Your task to perform on an android device: Go to Google Image 0: 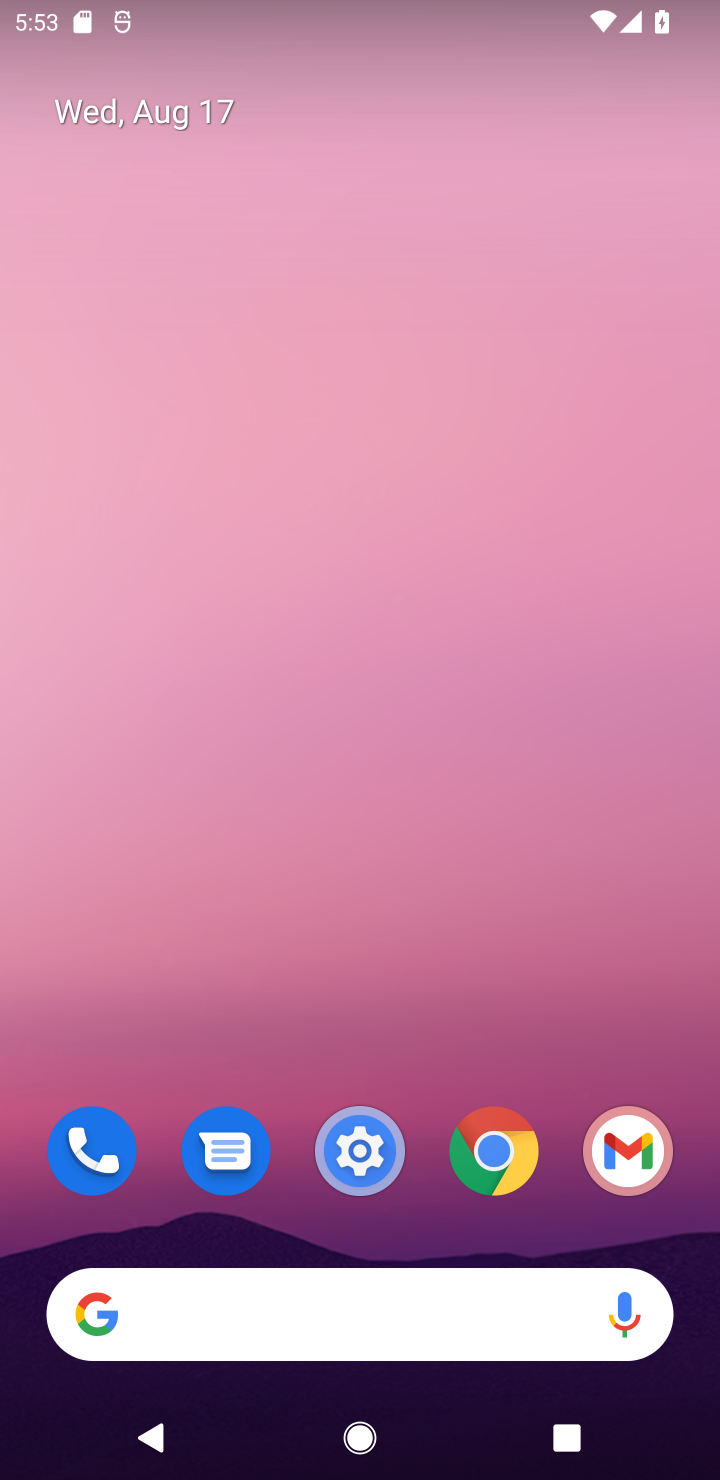
Step 0: click (486, 1188)
Your task to perform on an android device: Go to Google Image 1: 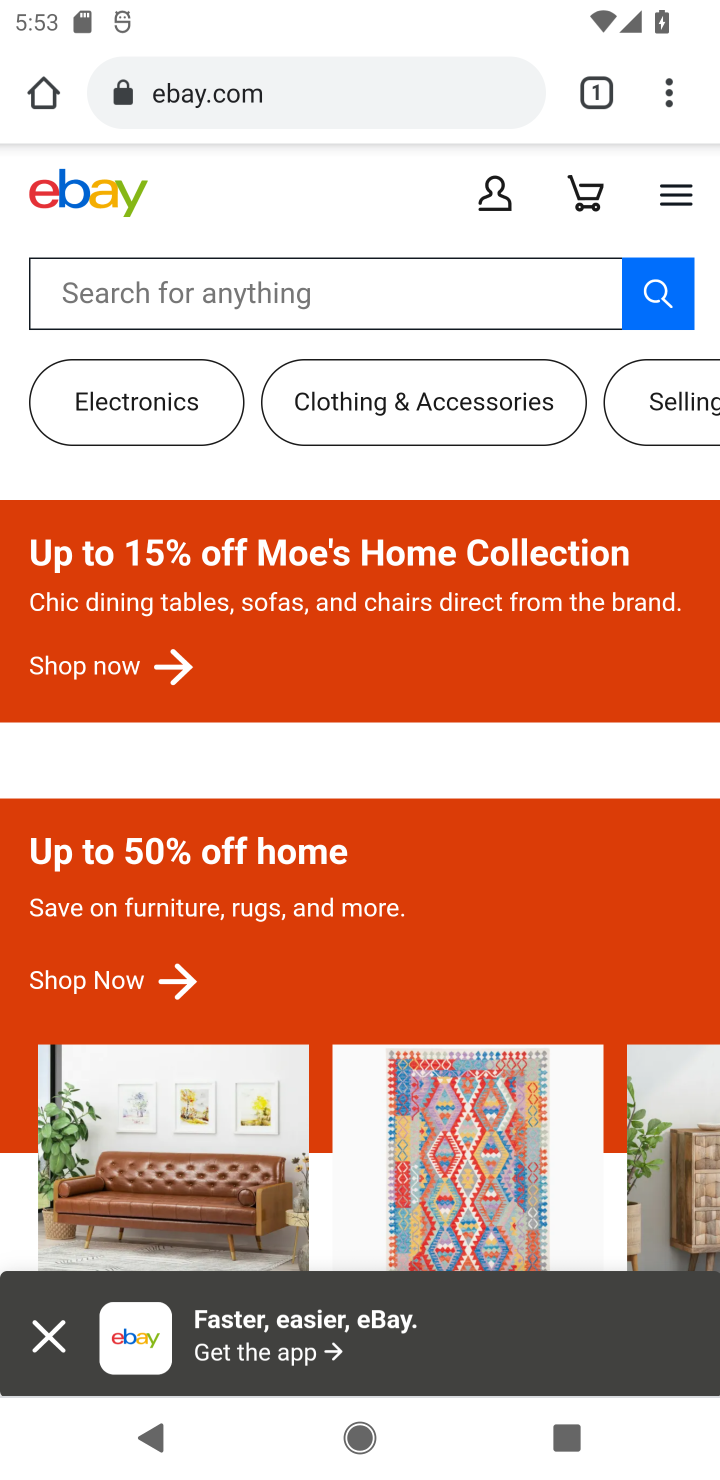
Step 1: click (255, 84)
Your task to perform on an android device: Go to Google Image 2: 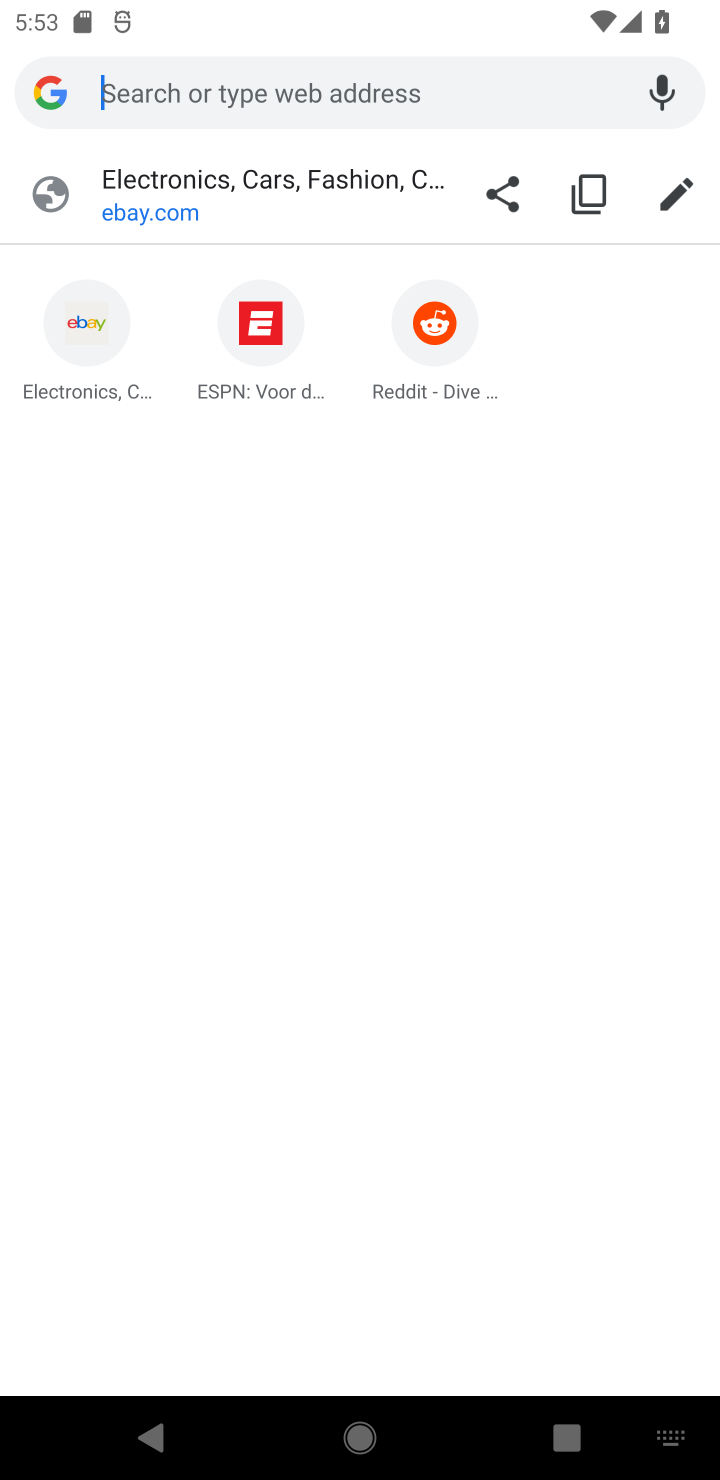
Step 2: type "google.com"
Your task to perform on an android device: Go to Google Image 3: 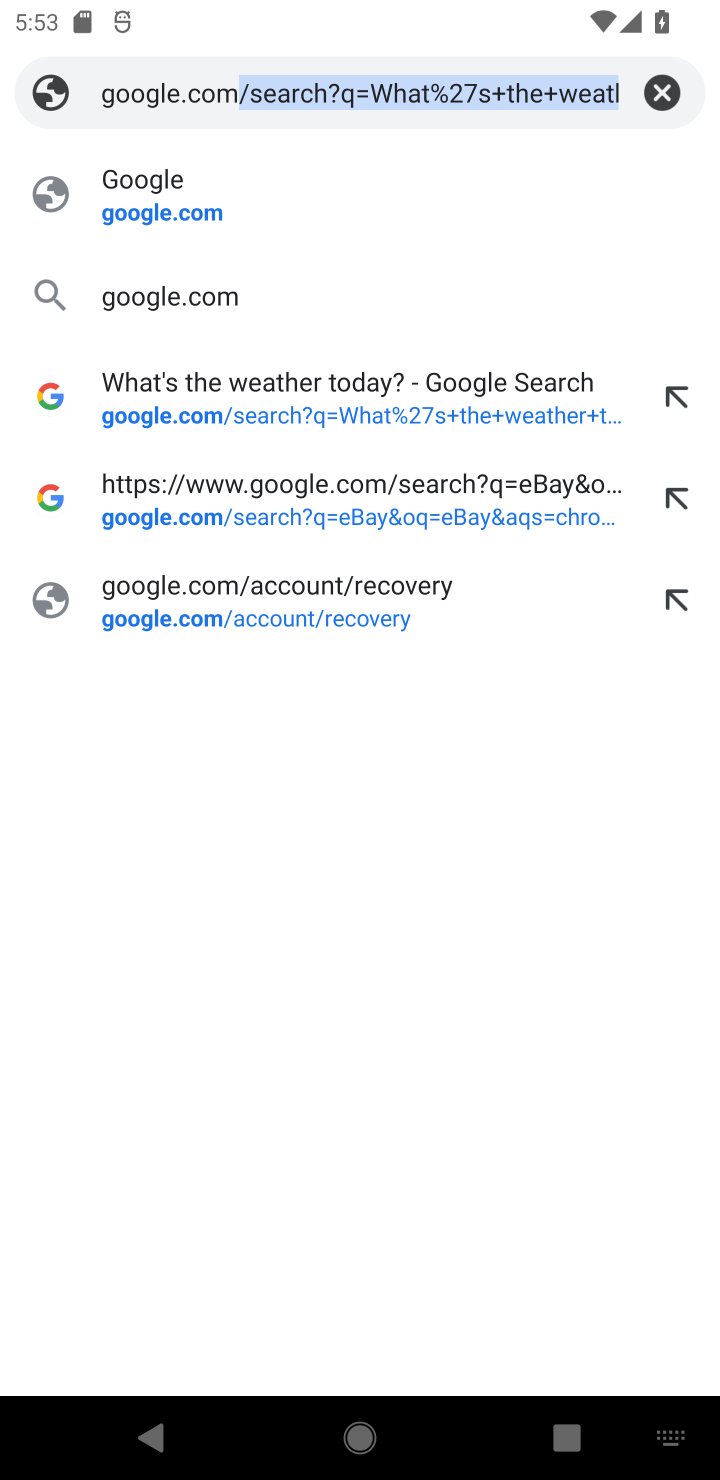
Step 3: click (189, 171)
Your task to perform on an android device: Go to Google Image 4: 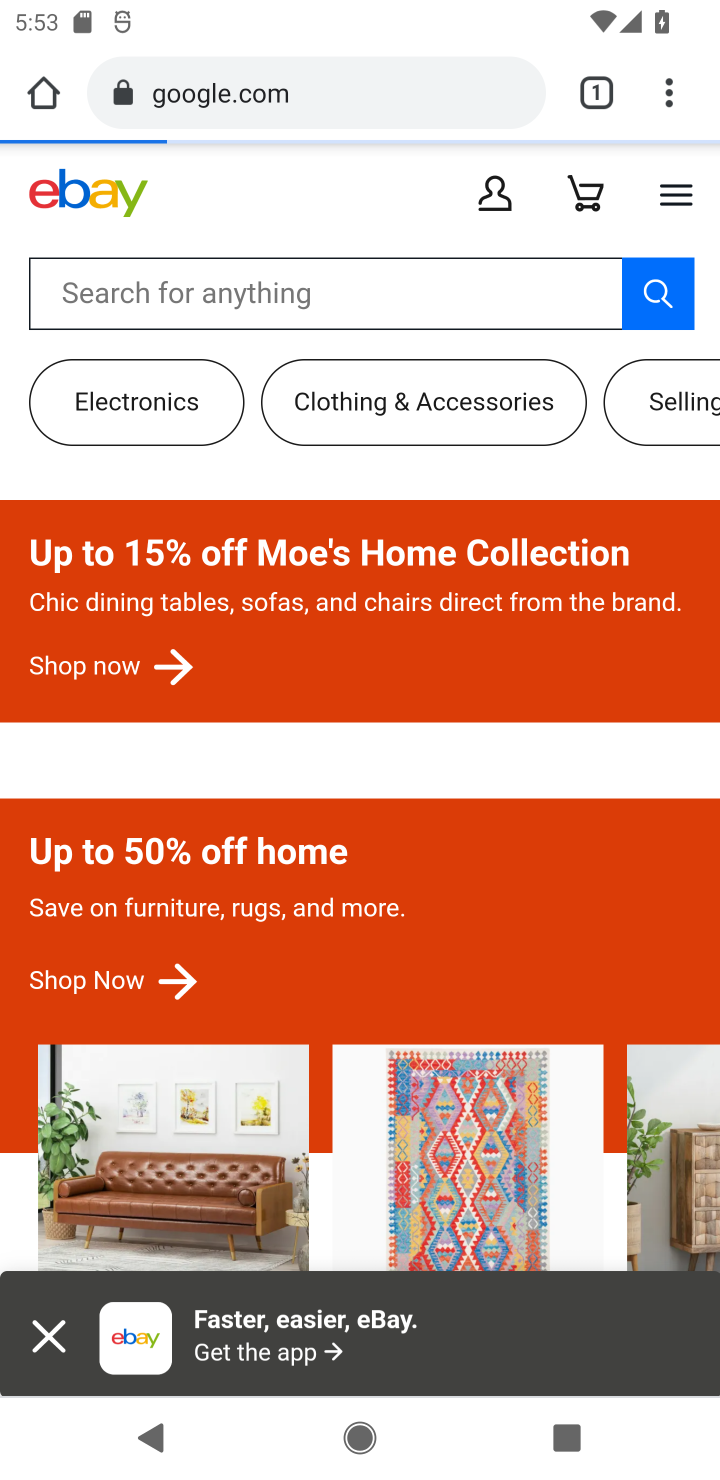
Step 4: task complete